Your task to perform on an android device: Go to Amazon Image 0: 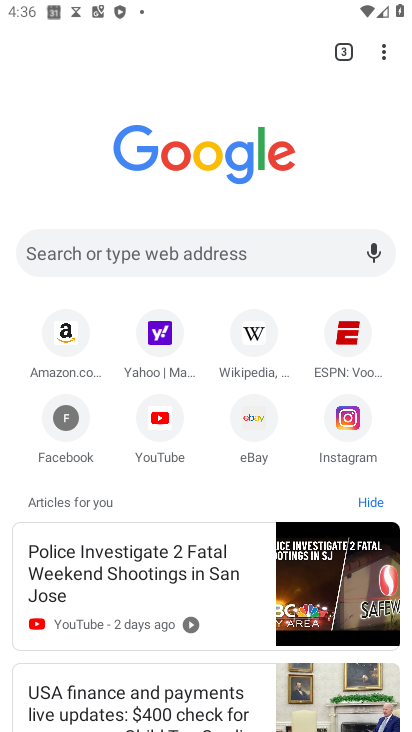
Step 0: click (65, 341)
Your task to perform on an android device: Go to Amazon Image 1: 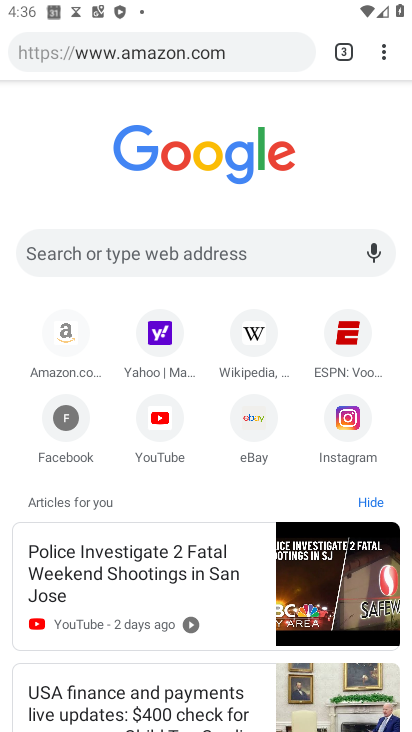
Step 1: click (63, 339)
Your task to perform on an android device: Go to Amazon Image 2: 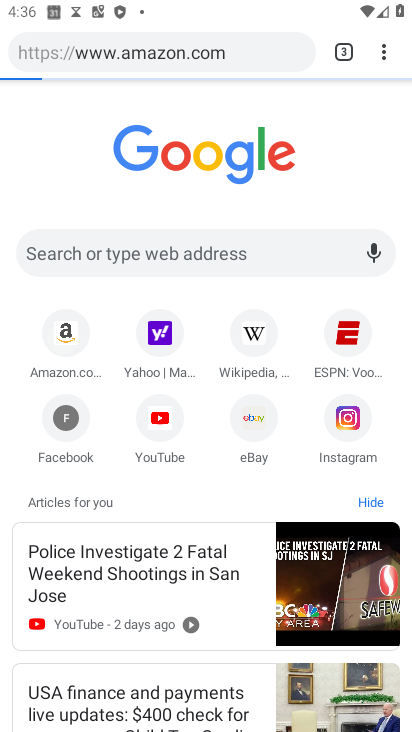
Step 2: click (63, 339)
Your task to perform on an android device: Go to Amazon Image 3: 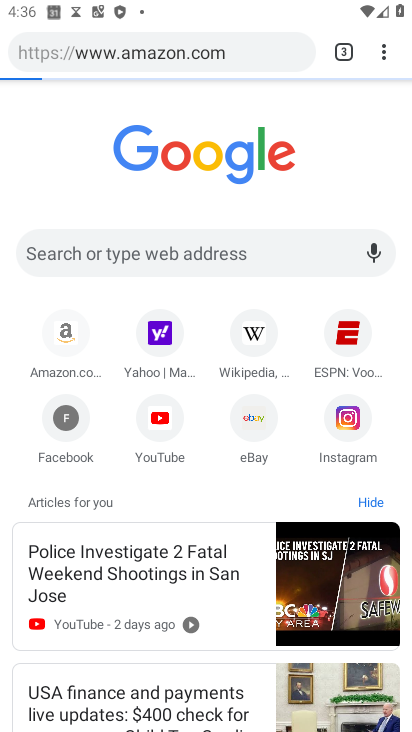
Step 3: click (63, 339)
Your task to perform on an android device: Go to Amazon Image 4: 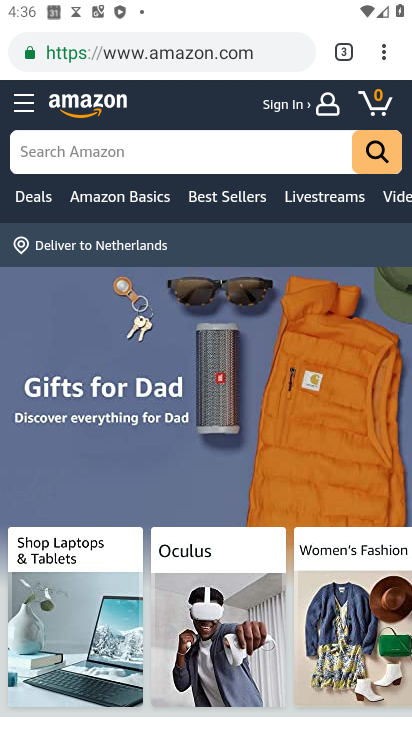
Step 4: task complete